Your task to perform on an android device: toggle show notifications on the lock screen Image 0: 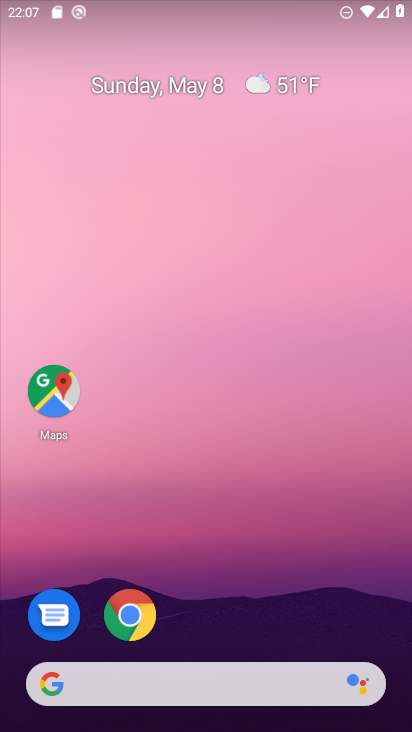
Step 0: drag from (197, 624) to (210, 95)
Your task to perform on an android device: toggle show notifications on the lock screen Image 1: 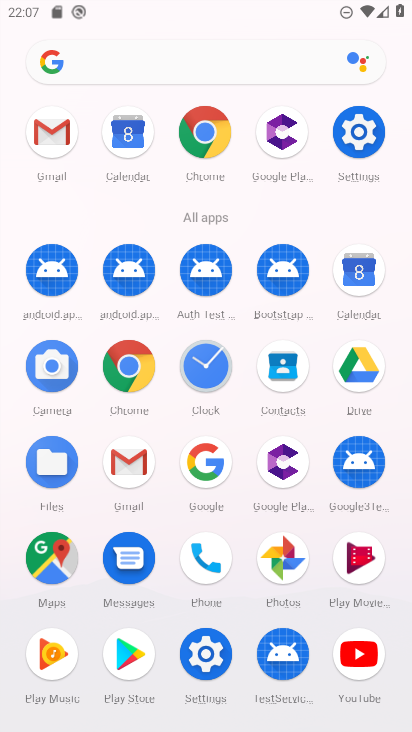
Step 1: click (365, 137)
Your task to perform on an android device: toggle show notifications on the lock screen Image 2: 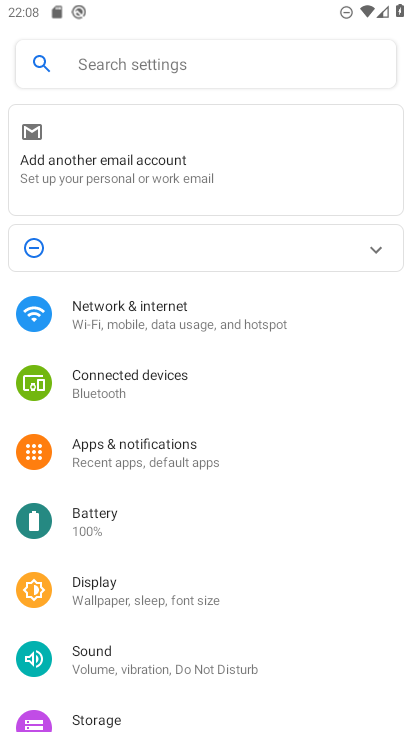
Step 2: click (158, 456)
Your task to perform on an android device: toggle show notifications on the lock screen Image 3: 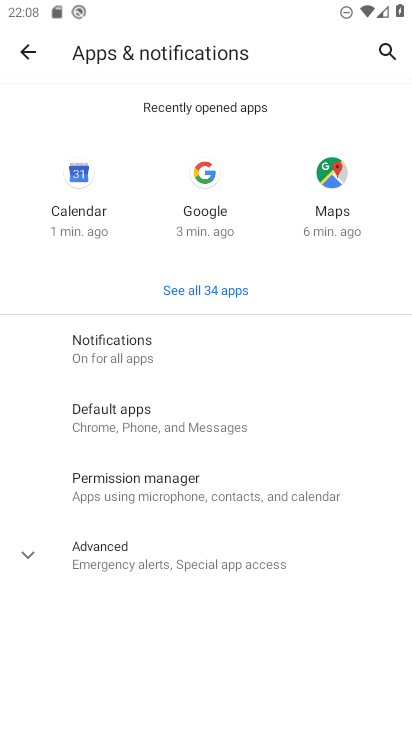
Step 3: click (138, 351)
Your task to perform on an android device: toggle show notifications on the lock screen Image 4: 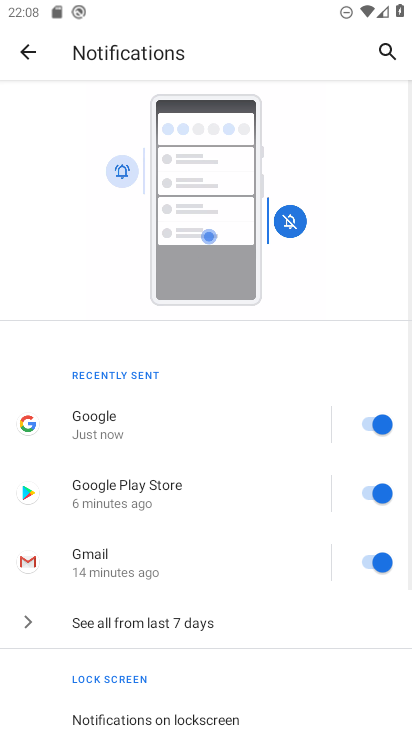
Step 4: click (192, 710)
Your task to perform on an android device: toggle show notifications on the lock screen Image 5: 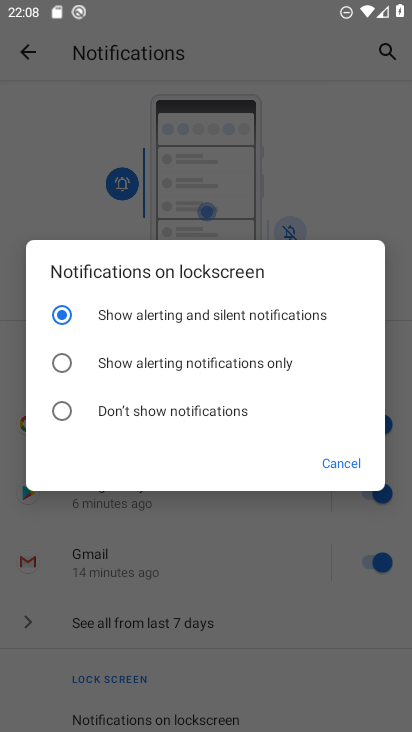
Step 5: click (185, 366)
Your task to perform on an android device: toggle show notifications on the lock screen Image 6: 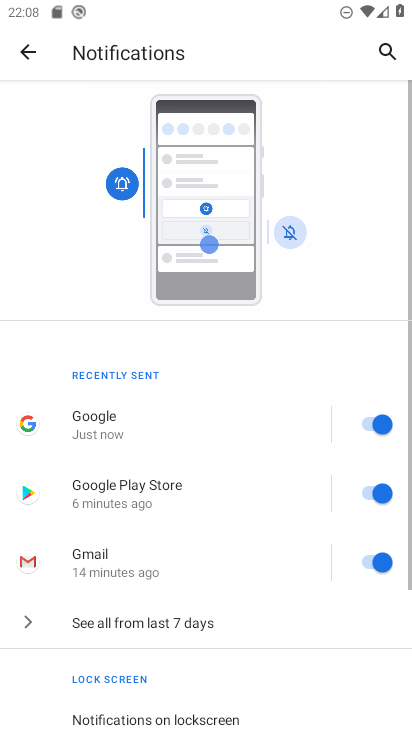
Step 6: task complete